Your task to perform on an android device: Show me the alarms in the clock app Image 0: 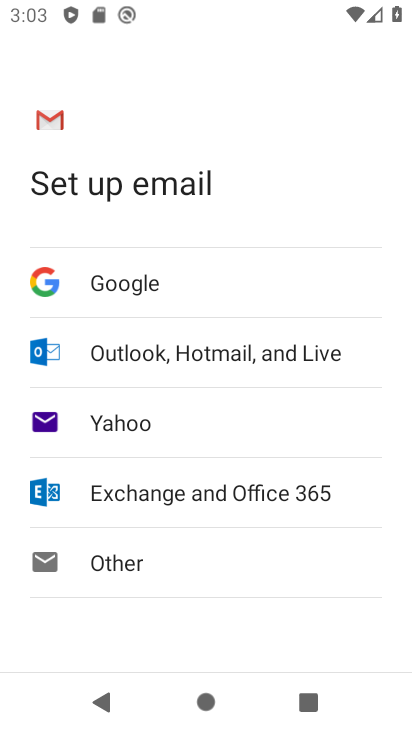
Step 0: press home button
Your task to perform on an android device: Show me the alarms in the clock app Image 1: 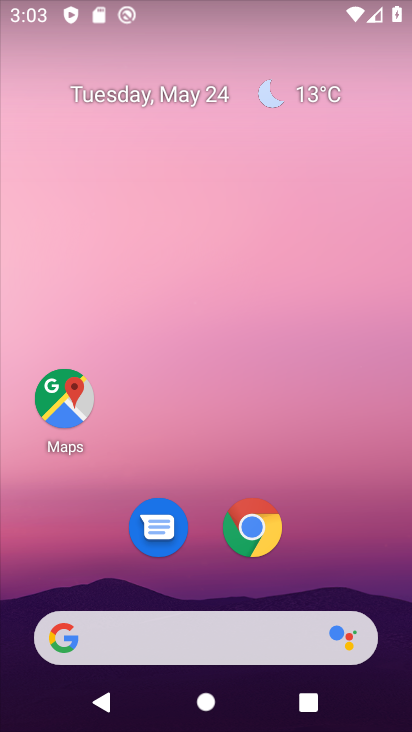
Step 1: drag from (199, 631) to (361, 120)
Your task to perform on an android device: Show me the alarms in the clock app Image 2: 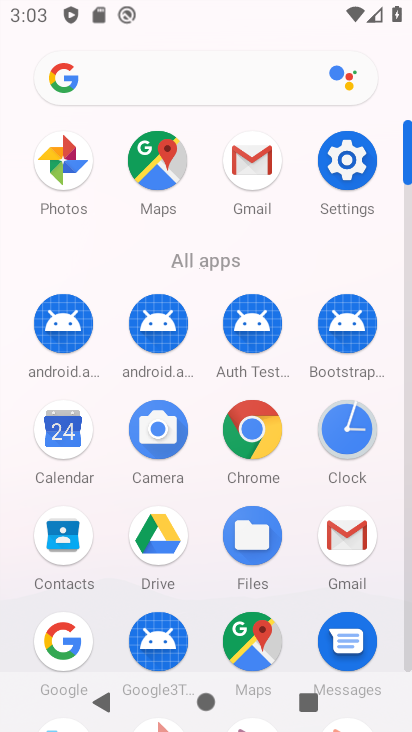
Step 2: click (342, 440)
Your task to perform on an android device: Show me the alarms in the clock app Image 3: 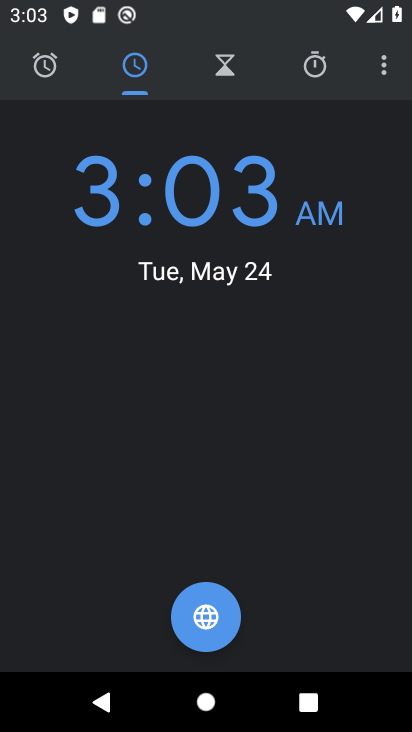
Step 3: click (39, 71)
Your task to perform on an android device: Show me the alarms in the clock app Image 4: 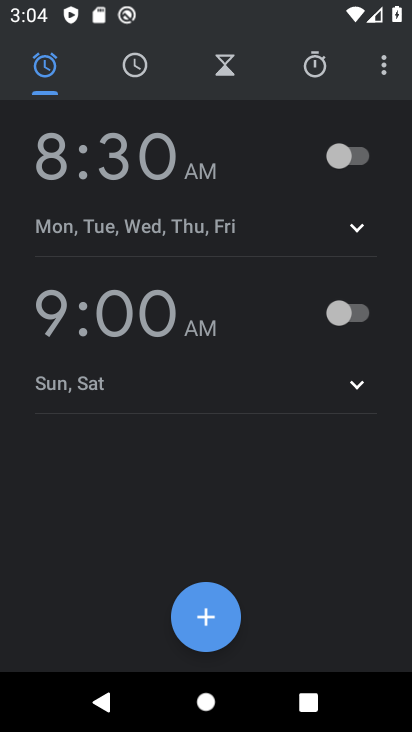
Step 4: task complete